Your task to perform on an android device: Open Google Image 0: 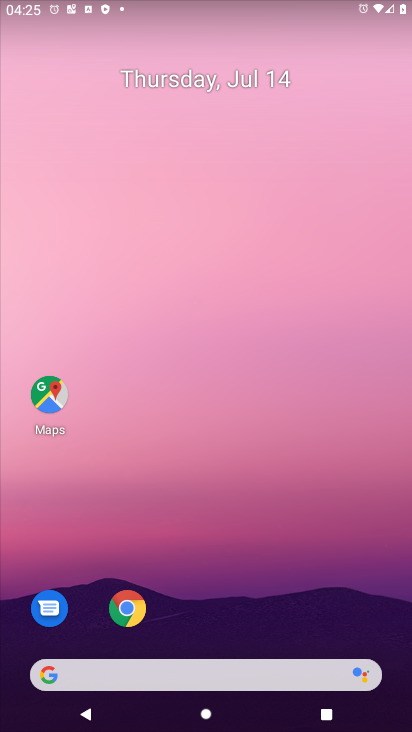
Step 0: click (130, 605)
Your task to perform on an android device: Open Google Image 1: 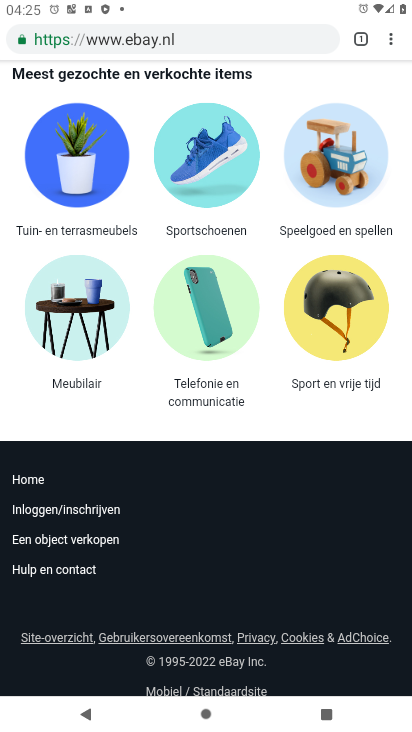
Step 1: task complete